Your task to perform on an android device: turn notification dots off Image 0: 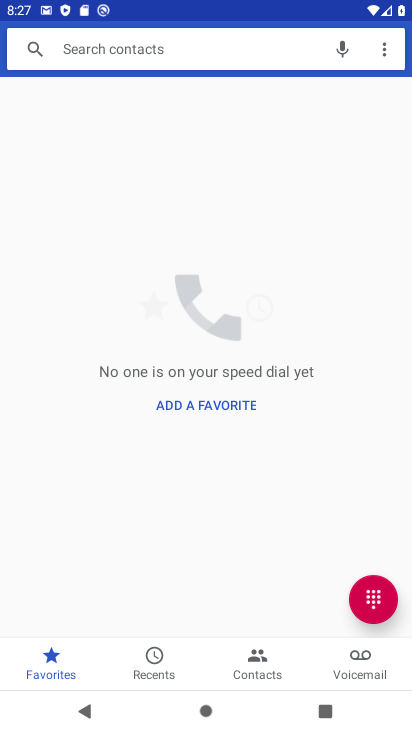
Step 0: press home button
Your task to perform on an android device: turn notification dots off Image 1: 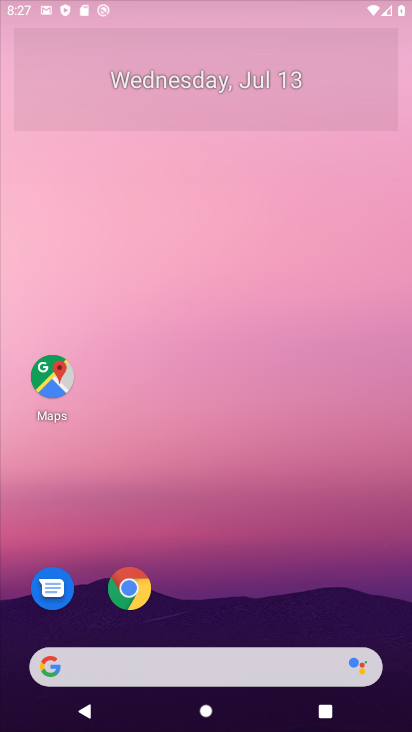
Step 1: drag from (226, 640) to (280, 200)
Your task to perform on an android device: turn notification dots off Image 2: 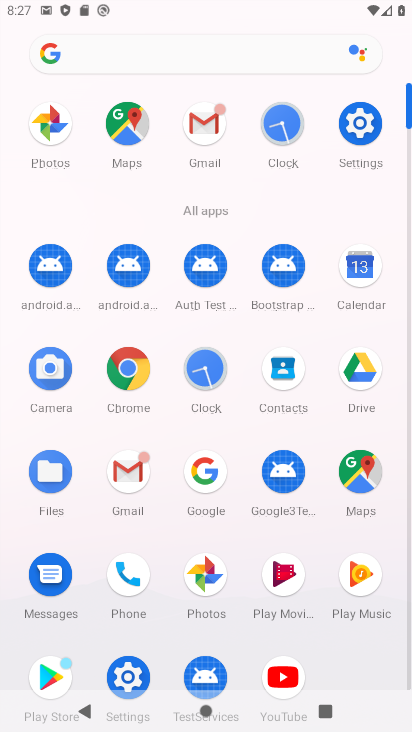
Step 2: click (361, 124)
Your task to perform on an android device: turn notification dots off Image 3: 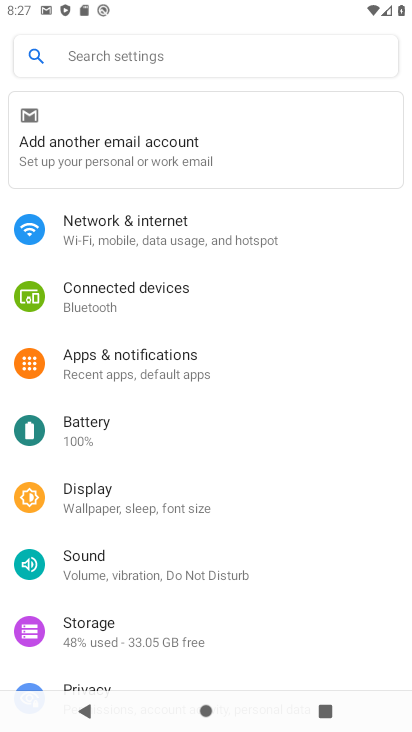
Step 3: click (208, 48)
Your task to perform on an android device: turn notification dots off Image 4: 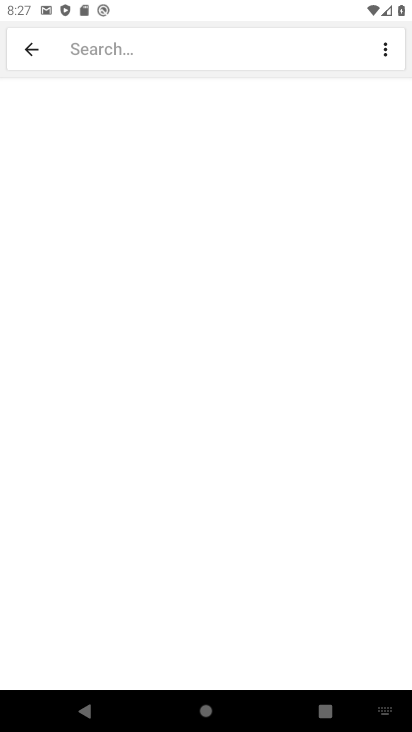
Step 4: type " notification dots  "
Your task to perform on an android device: turn notification dots off Image 5: 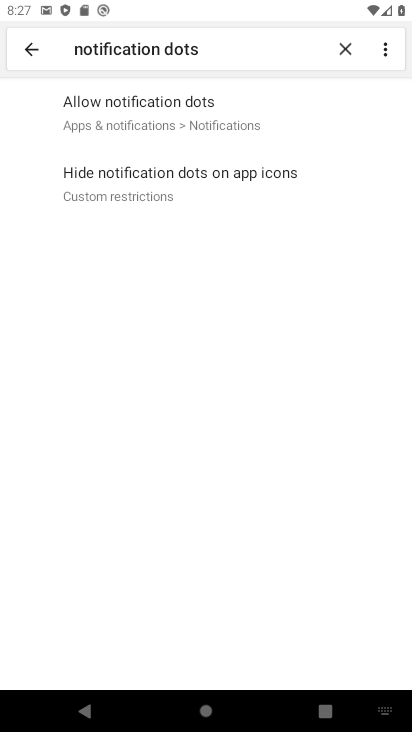
Step 5: click (169, 107)
Your task to perform on an android device: turn notification dots off Image 6: 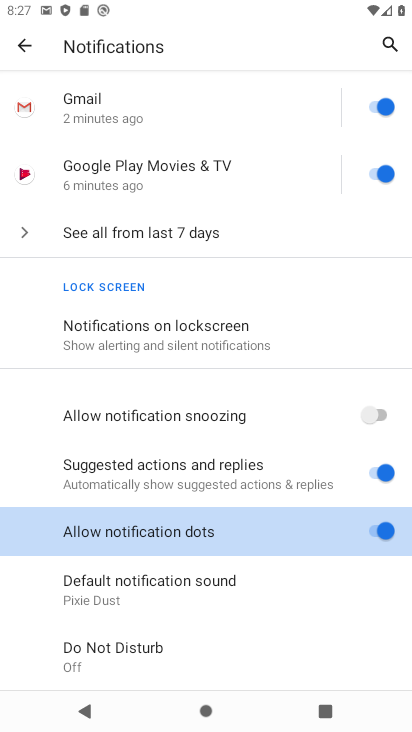
Step 6: click (381, 524)
Your task to perform on an android device: turn notification dots off Image 7: 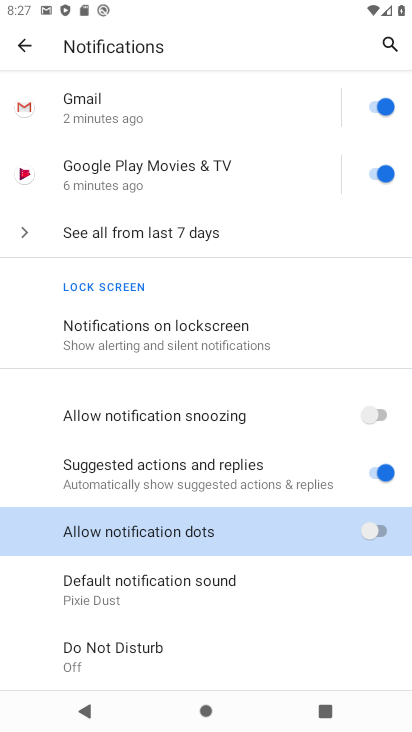
Step 7: task complete